Your task to perform on an android device: open sync settings in chrome Image 0: 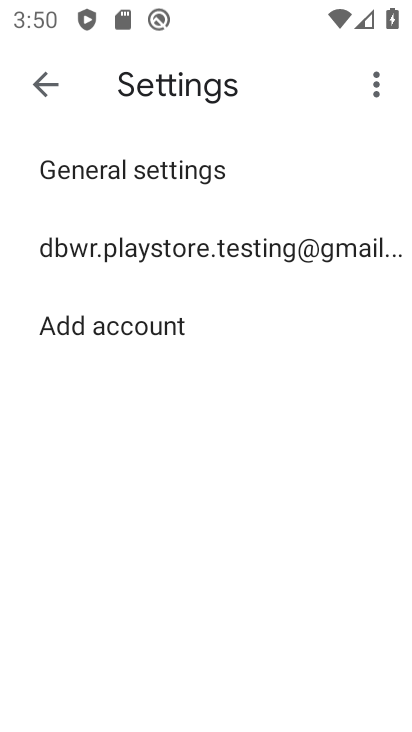
Step 0: press home button
Your task to perform on an android device: open sync settings in chrome Image 1: 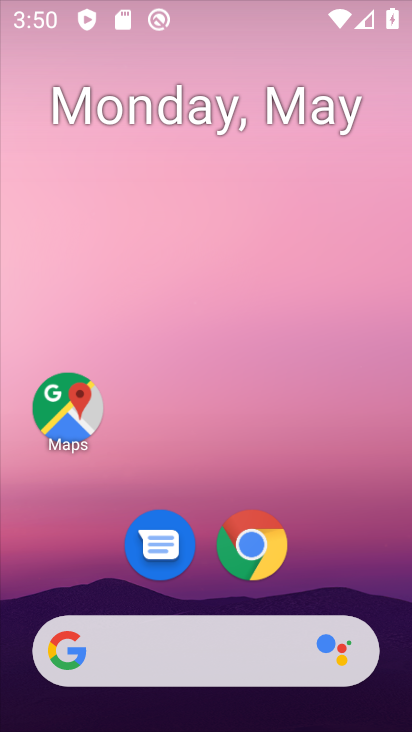
Step 1: click (254, 546)
Your task to perform on an android device: open sync settings in chrome Image 2: 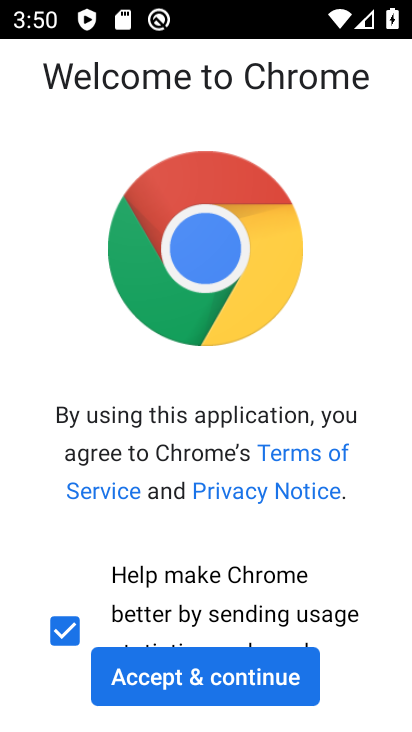
Step 2: click (236, 685)
Your task to perform on an android device: open sync settings in chrome Image 3: 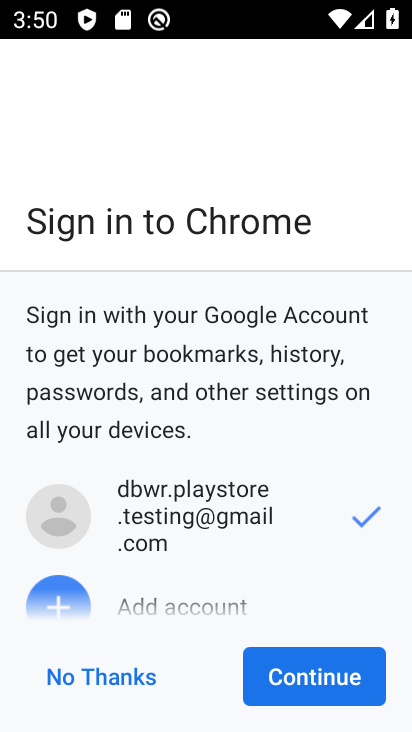
Step 3: click (286, 672)
Your task to perform on an android device: open sync settings in chrome Image 4: 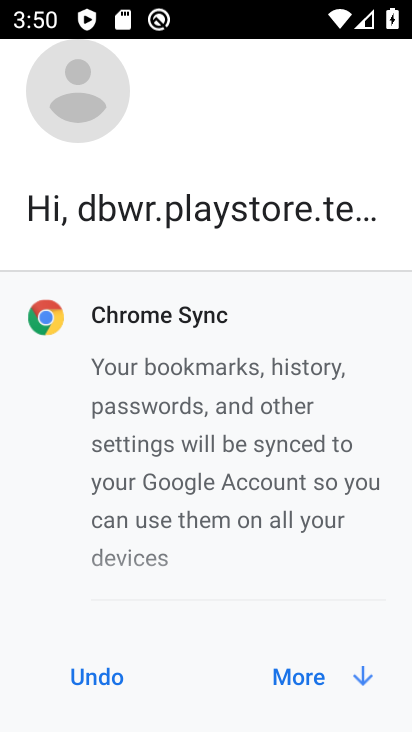
Step 4: click (292, 675)
Your task to perform on an android device: open sync settings in chrome Image 5: 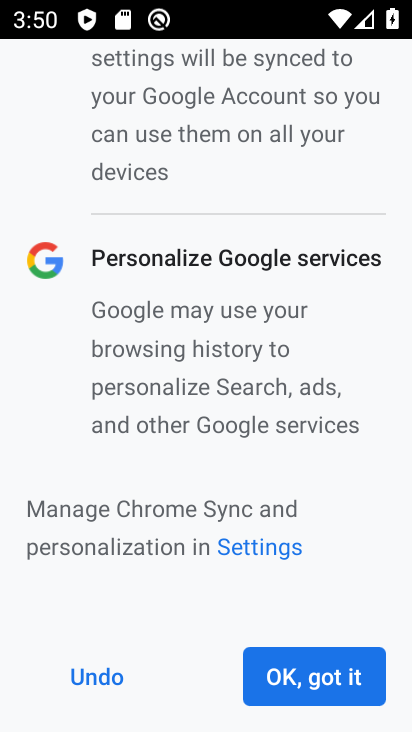
Step 5: click (287, 675)
Your task to perform on an android device: open sync settings in chrome Image 6: 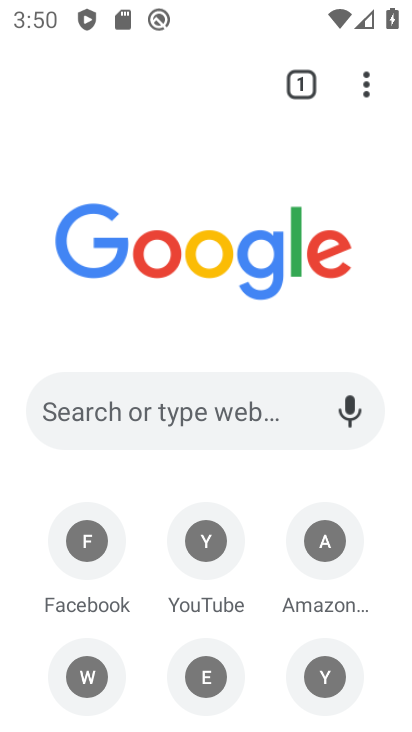
Step 6: click (364, 82)
Your task to perform on an android device: open sync settings in chrome Image 7: 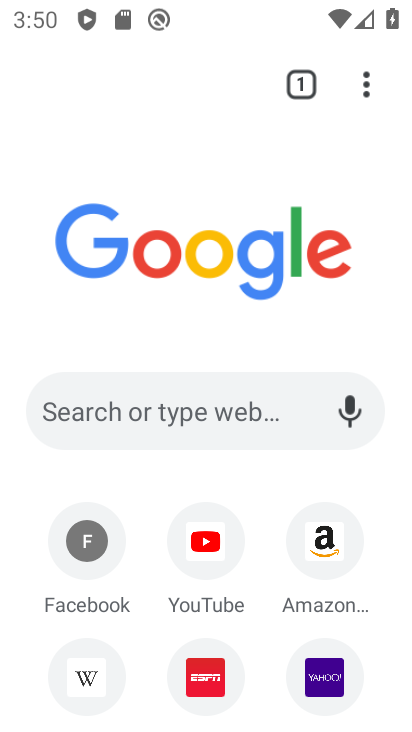
Step 7: click (359, 85)
Your task to perform on an android device: open sync settings in chrome Image 8: 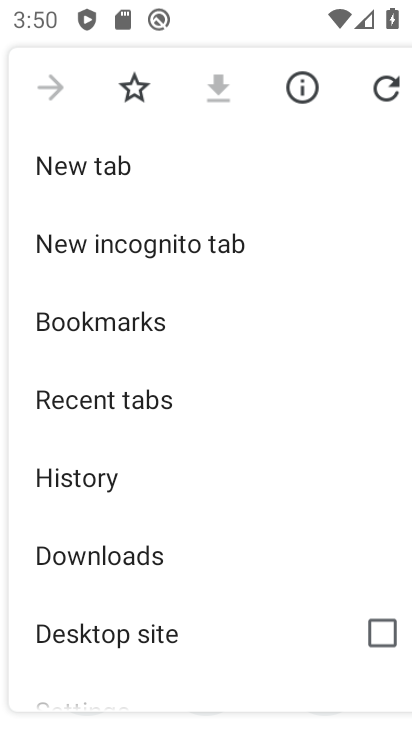
Step 8: drag from (142, 549) to (200, 249)
Your task to perform on an android device: open sync settings in chrome Image 9: 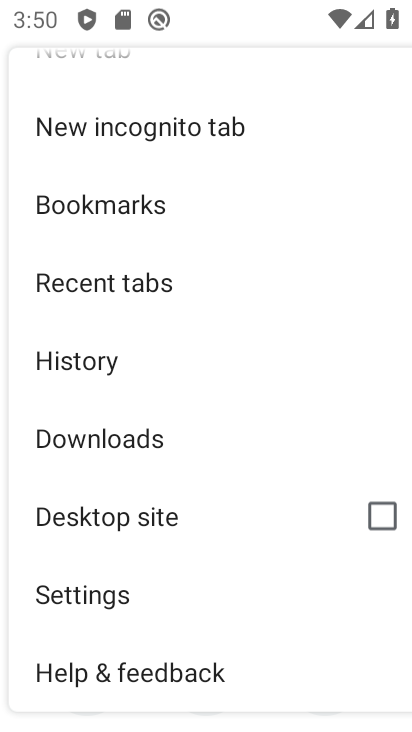
Step 9: click (131, 604)
Your task to perform on an android device: open sync settings in chrome Image 10: 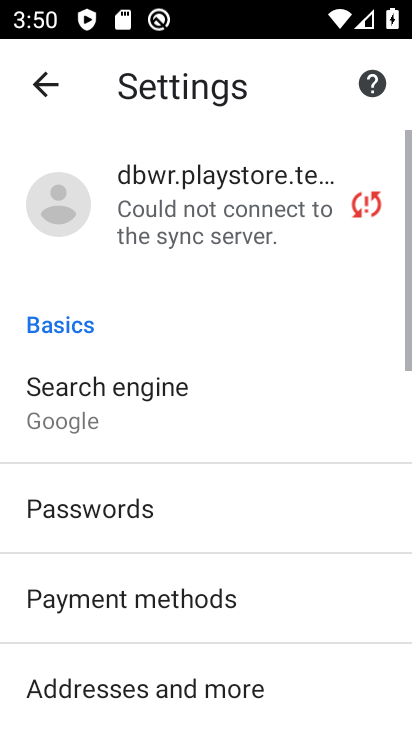
Step 10: drag from (192, 454) to (228, 67)
Your task to perform on an android device: open sync settings in chrome Image 11: 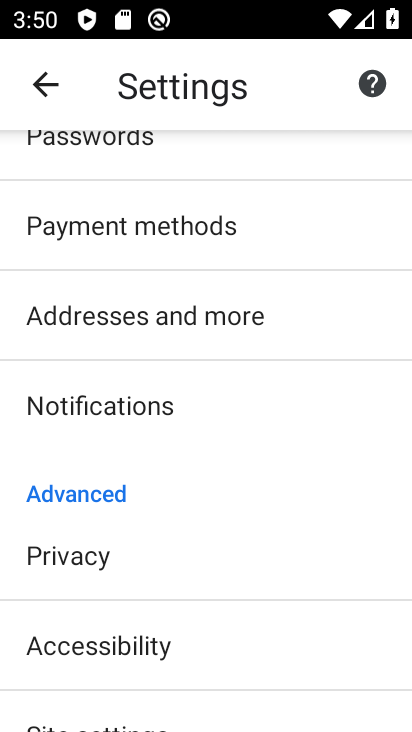
Step 11: drag from (132, 628) to (169, 235)
Your task to perform on an android device: open sync settings in chrome Image 12: 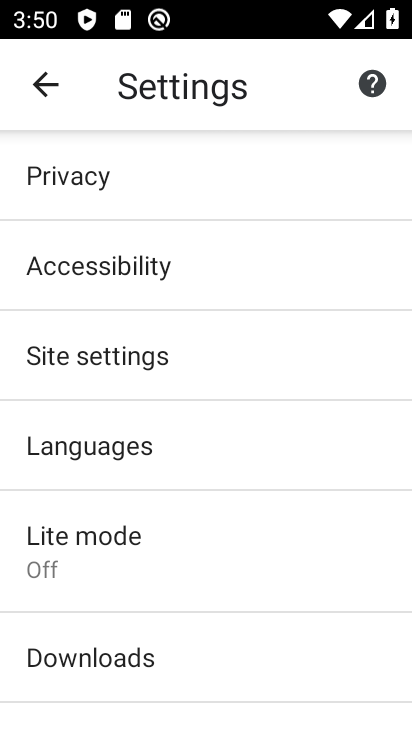
Step 12: click (150, 376)
Your task to perform on an android device: open sync settings in chrome Image 13: 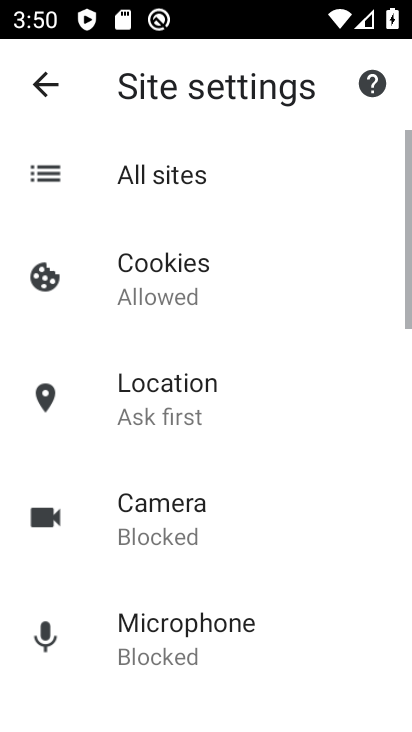
Step 13: drag from (209, 585) to (243, 151)
Your task to perform on an android device: open sync settings in chrome Image 14: 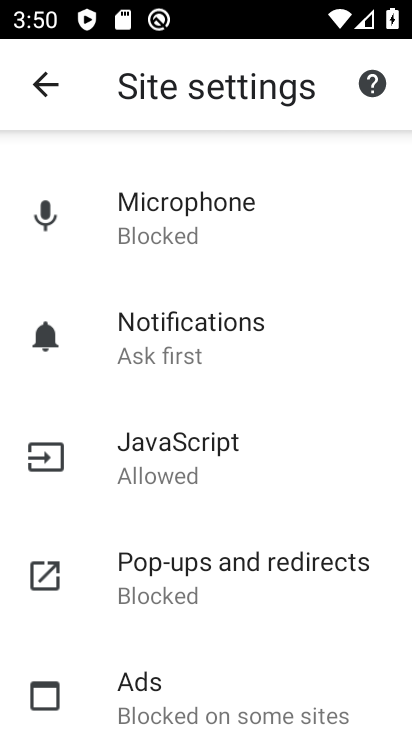
Step 14: drag from (210, 637) to (206, 328)
Your task to perform on an android device: open sync settings in chrome Image 15: 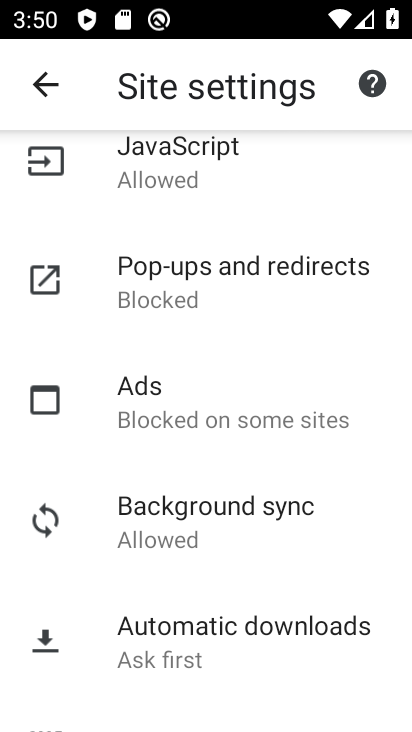
Step 15: click (196, 538)
Your task to perform on an android device: open sync settings in chrome Image 16: 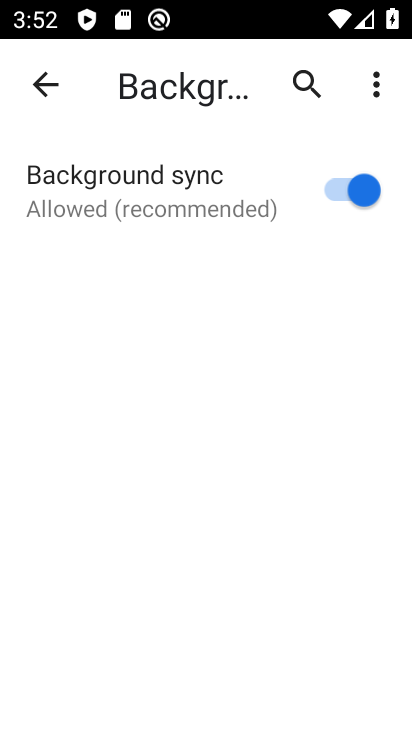
Step 16: task complete